Your task to perform on an android device: see creations saved in the google photos Image 0: 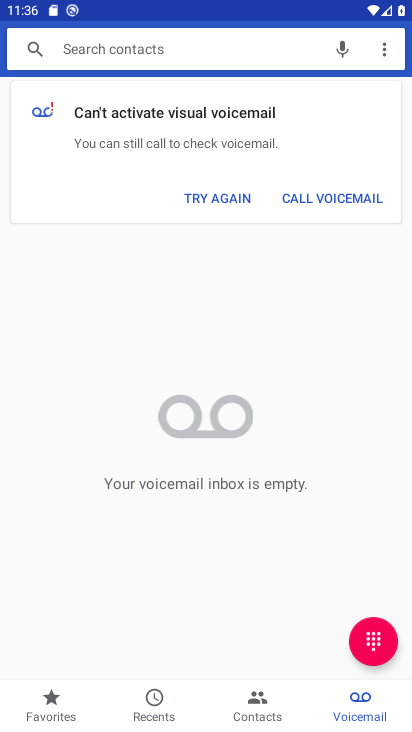
Step 0: press home button
Your task to perform on an android device: see creations saved in the google photos Image 1: 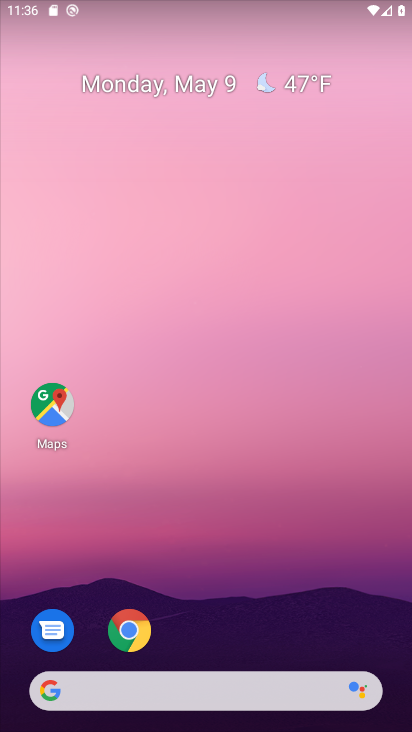
Step 1: drag from (202, 634) to (99, 220)
Your task to perform on an android device: see creations saved in the google photos Image 2: 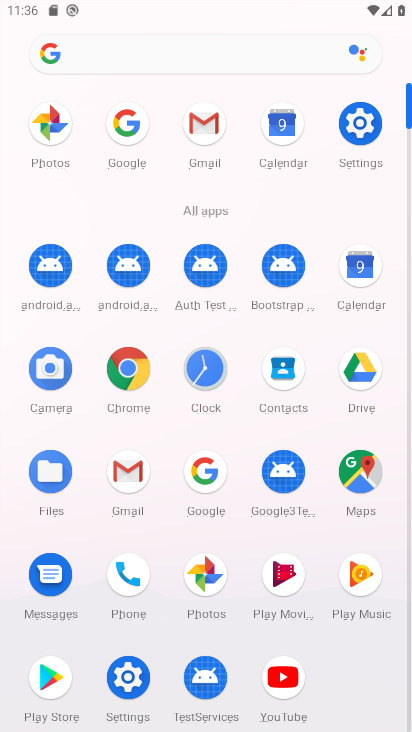
Step 2: click (199, 573)
Your task to perform on an android device: see creations saved in the google photos Image 3: 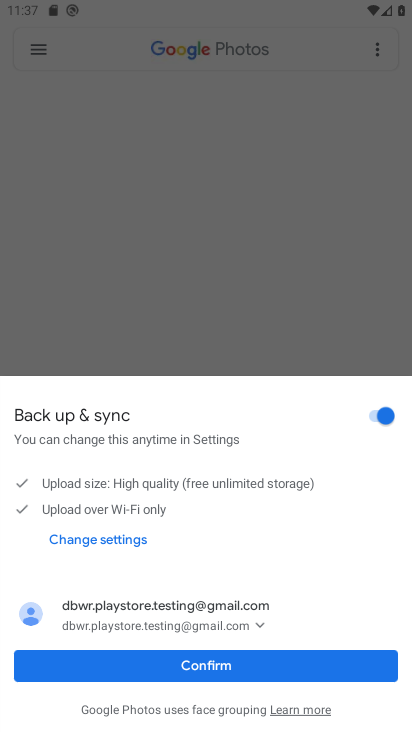
Step 3: click (326, 328)
Your task to perform on an android device: see creations saved in the google photos Image 4: 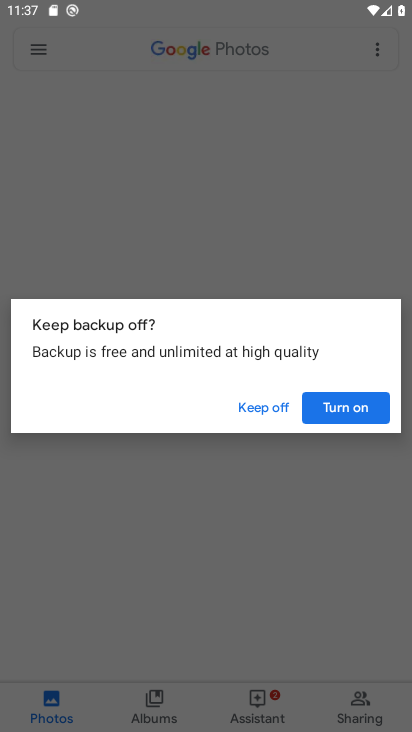
Step 4: press back button
Your task to perform on an android device: see creations saved in the google photos Image 5: 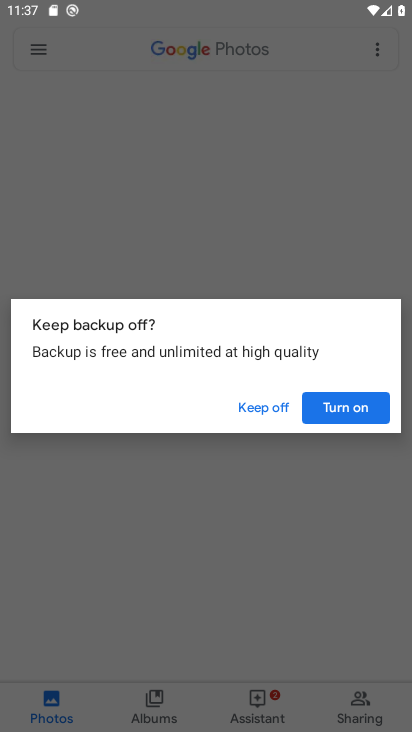
Step 5: click (256, 407)
Your task to perform on an android device: see creations saved in the google photos Image 6: 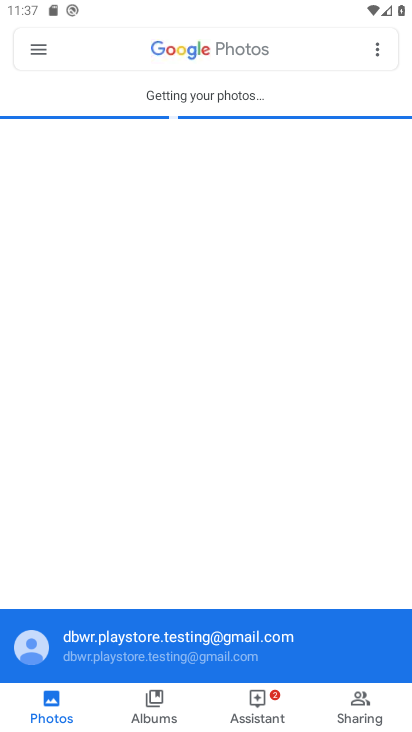
Step 6: click (375, 54)
Your task to perform on an android device: see creations saved in the google photos Image 7: 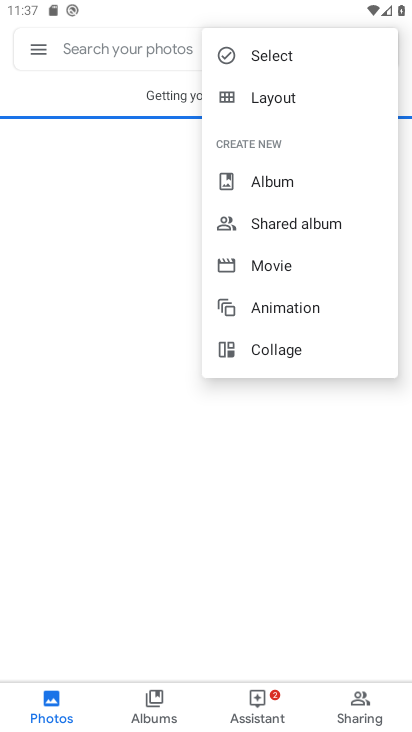
Step 7: drag from (284, 355) to (292, 130)
Your task to perform on an android device: see creations saved in the google photos Image 8: 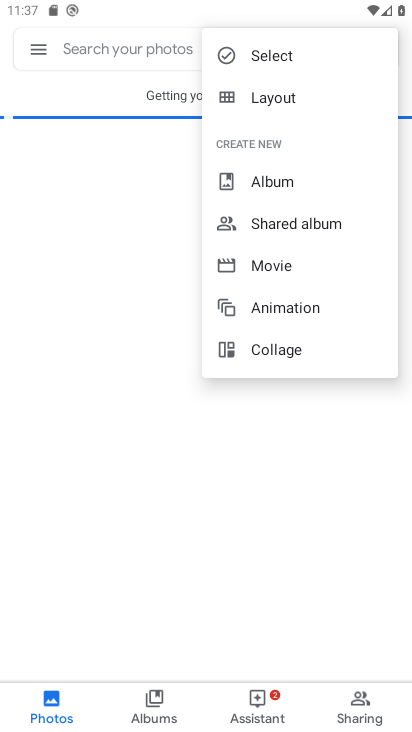
Step 8: click (128, 44)
Your task to perform on an android device: see creations saved in the google photos Image 9: 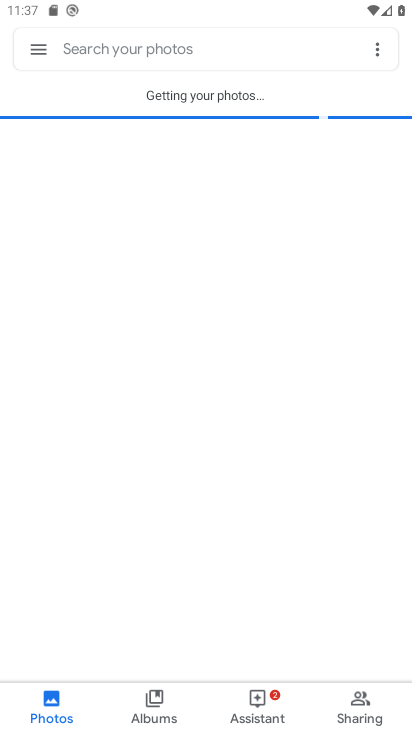
Step 9: click (85, 45)
Your task to perform on an android device: see creations saved in the google photos Image 10: 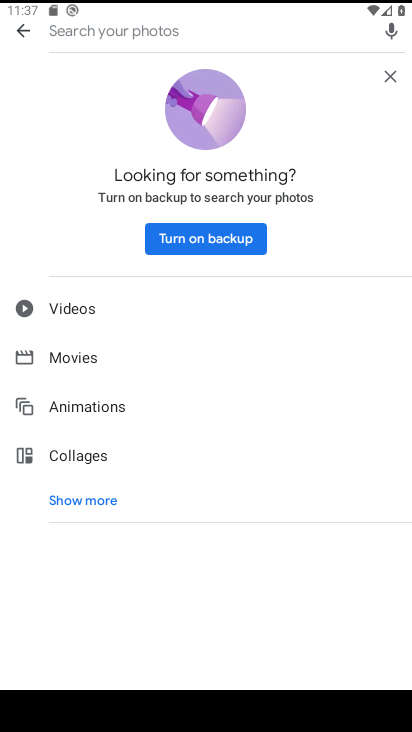
Step 10: click (80, 494)
Your task to perform on an android device: see creations saved in the google photos Image 11: 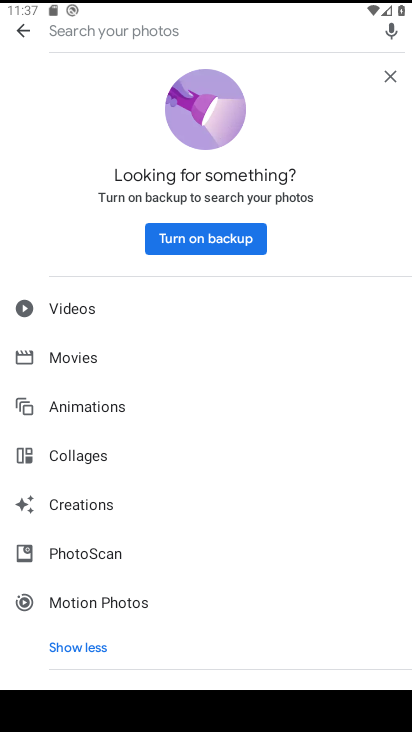
Step 11: click (80, 500)
Your task to perform on an android device: see creations saved in the google photos Image 12: 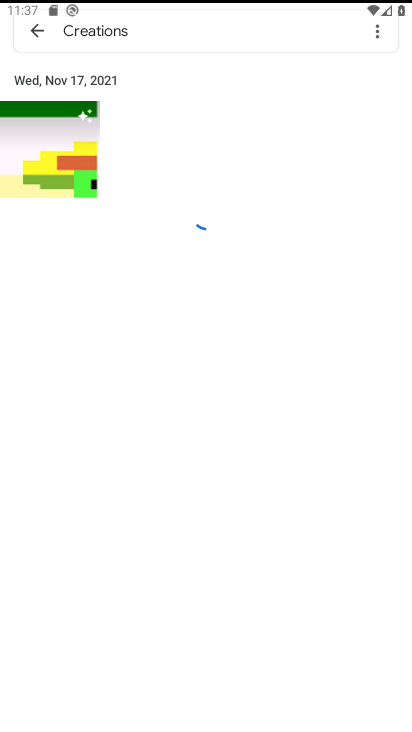
Step 12: task complete